Your task to perform on an android device: Open ESPN.com Image 0: 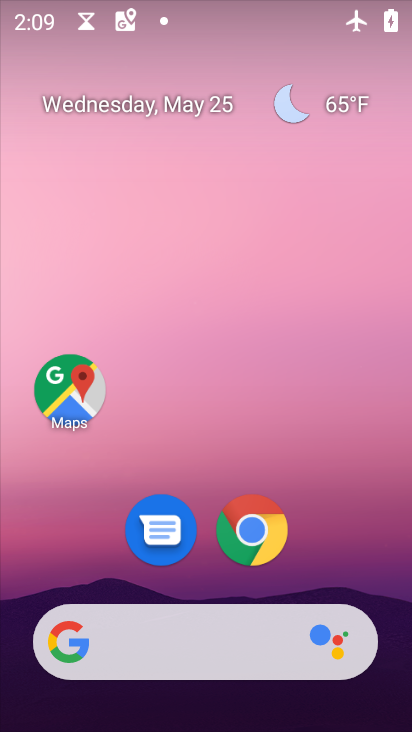
Step 0: click (238, 529)
Your task to perform on an android device: Open ESPN.com Image 1: 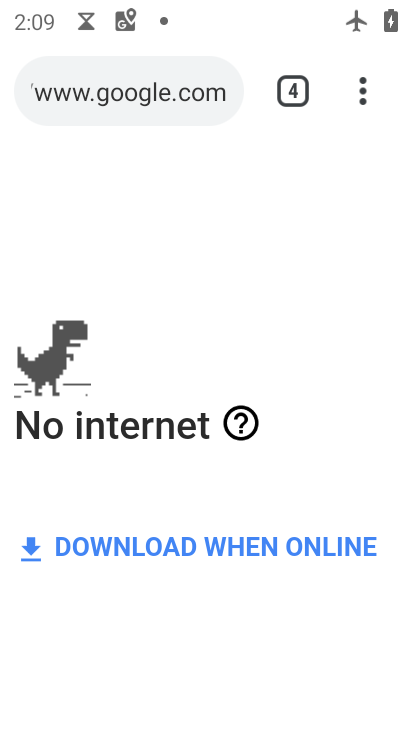
Step 1: click (370, 87)
Your task to perform on an android device: Open ESPN.com Image 2: 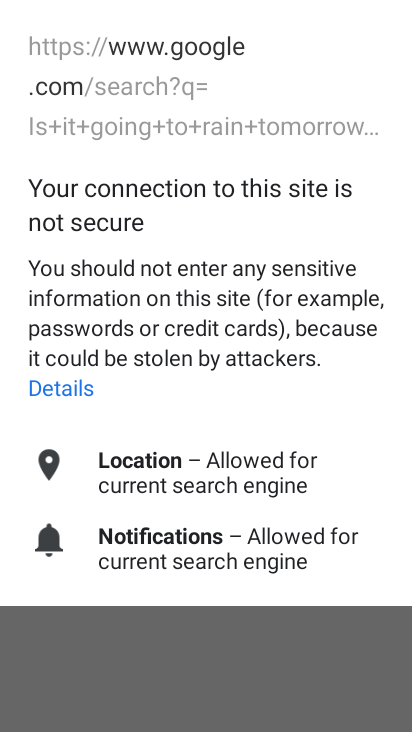
Step 2: press back button
Your task to perform on an android device: Open ESPN.com Image 3: 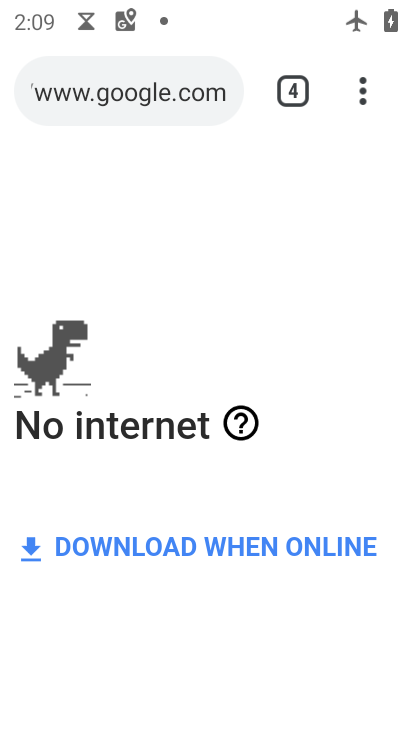
Step 3: click (348, 87)
Your task to perform on an android device: Open ESPN.com Image 4: 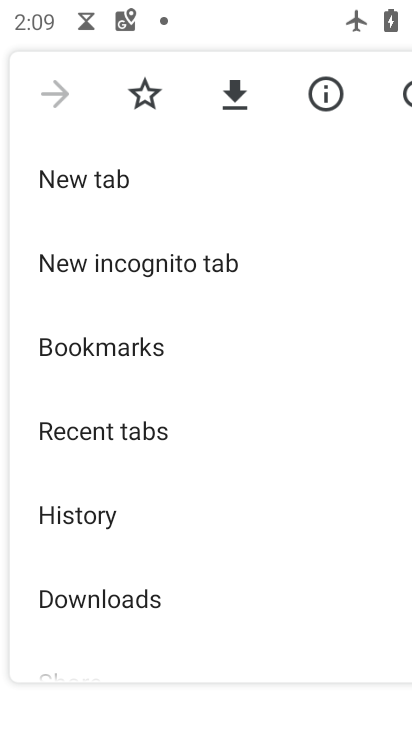
Step 4: click (116, 177)
Your task to perform on an android device: Open ESPN.com Image 5: 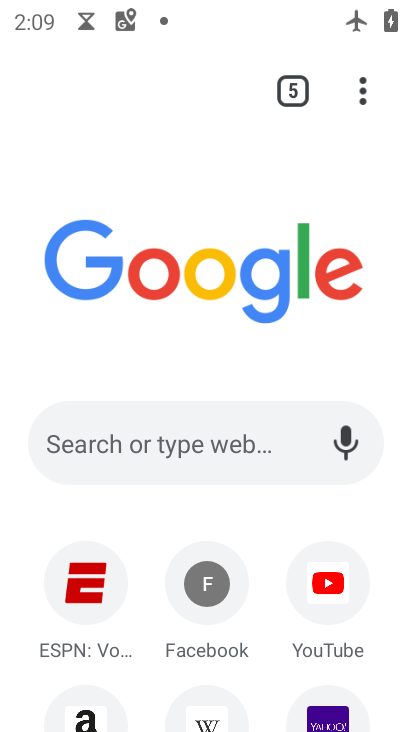
Step 5: click (90, 578)
Your task to perform on an android device: Open ESPN.com Image 6: 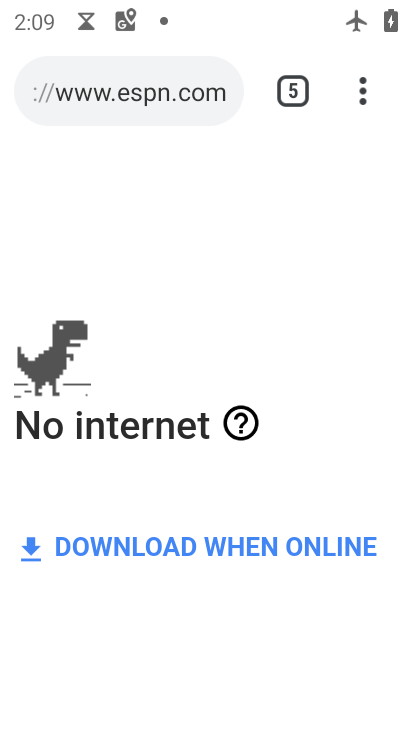
Step 6: task complete